Your task to perform on an android device: Search for logitech g pro on ebay.com, select the first entry, and add it to the cart. Image 0: 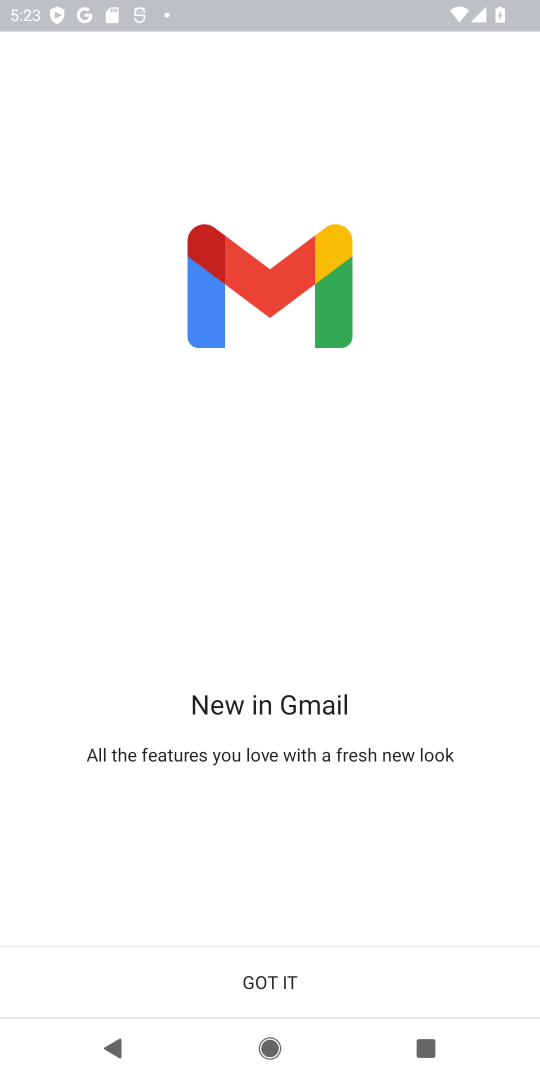
Step 0: press home button
Your task to perform on an android device: Search for logitech g pro on ebay.com, select the first entry, and add it to the cart. Image 1: 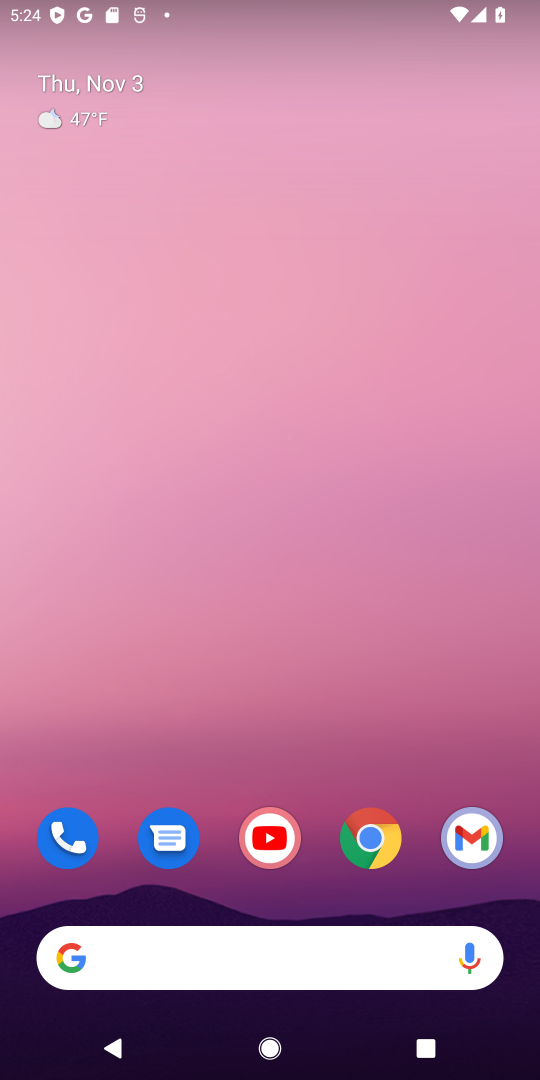
Step 1: click (236, 970)
Your task to perform on an android device: Search for logitech g pro on ebay.com, select the first entry, and add it to the cart. Image 2: 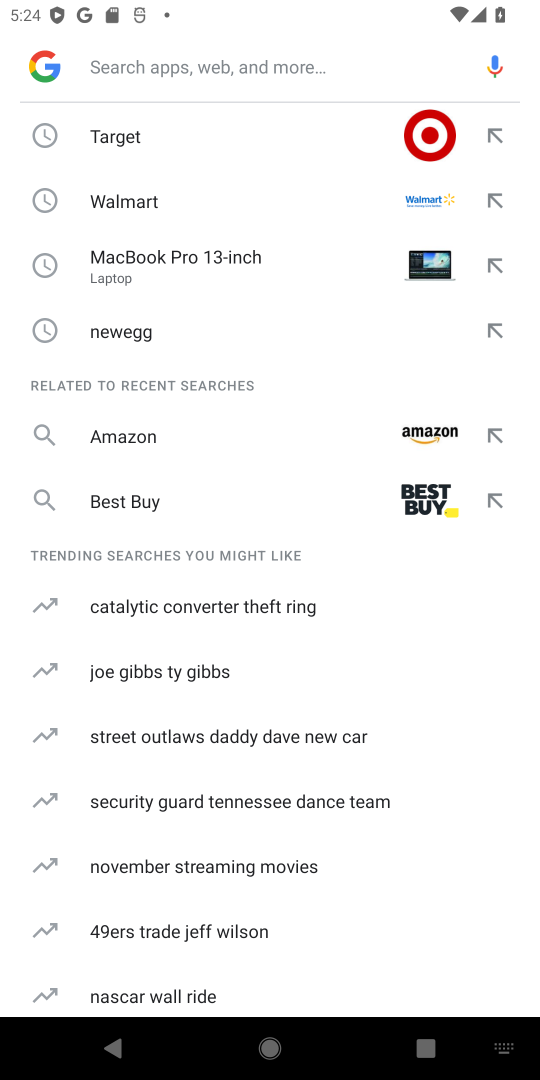
Step 2: type "ebay.com"
Your task to perform on an android device: Search for logitech g pro on ebay.com, select the first entry, and add it to the cart. Image 3: 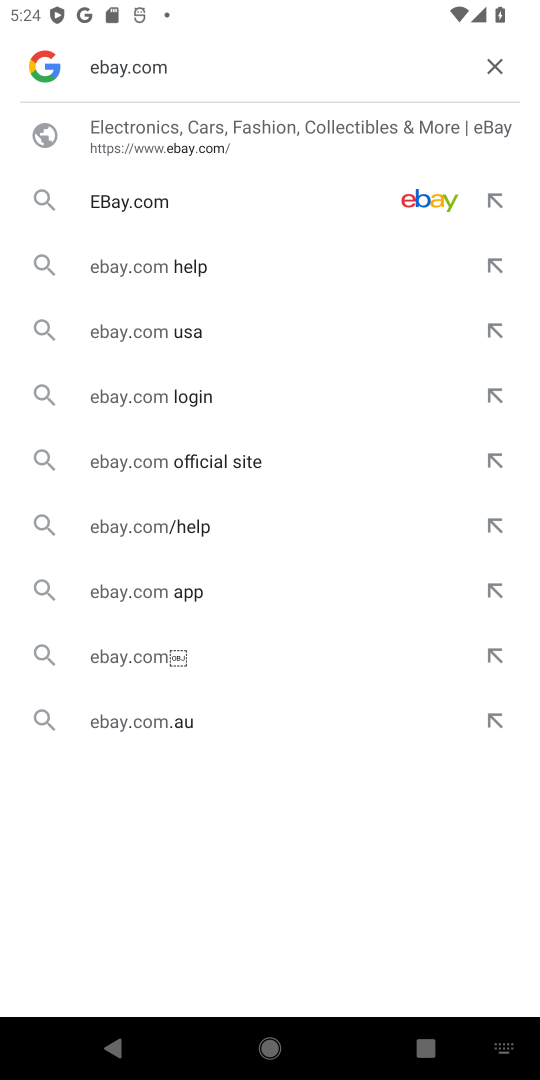
Step 3: click (169, 145)
Your task to perform on an android device: Search for logitech g pro on ebay.com, select the first entry, and add it to the cart. Image 4: 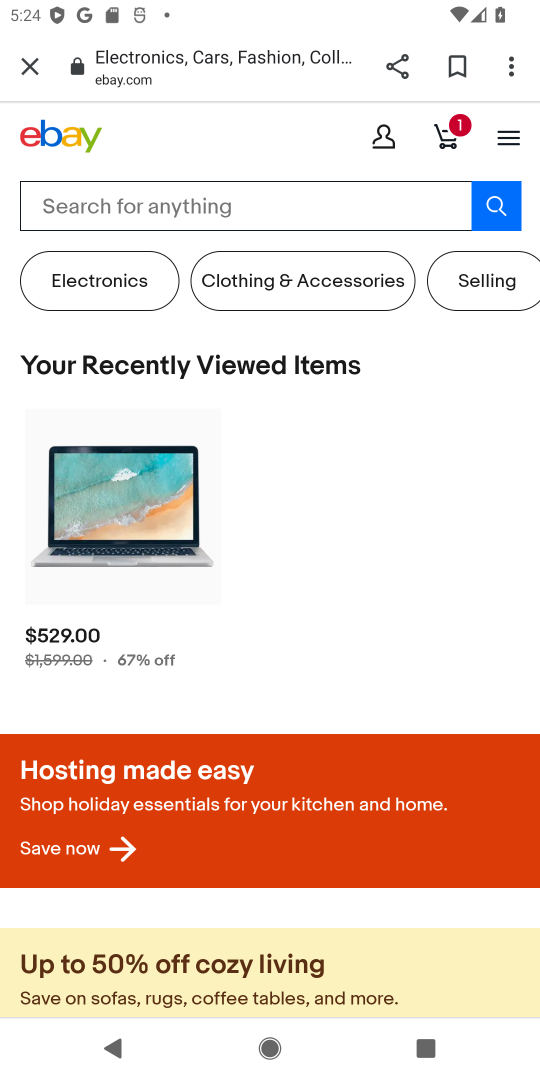
Step 4: click (155, 213)
Your task to perform on an android device: Search for logitech g pro on ebay.com, select the first entry, and add it to the cart. Image 5: 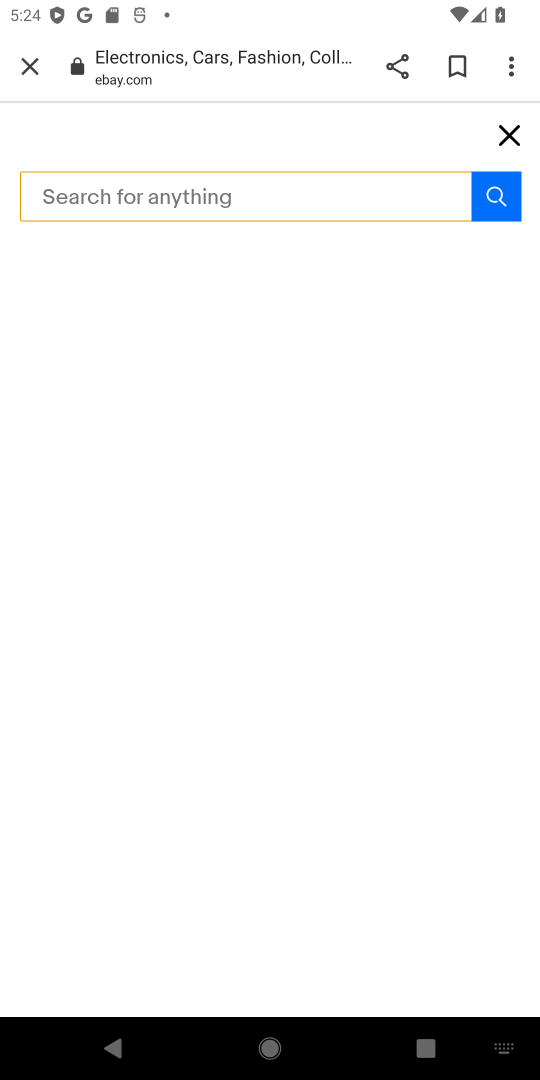
Step 5: type "logitech g pro "
Your task to perform on an android device: Search for logitech g pro on ebay.com, select the first entry, and add it to the cart. Image 6: 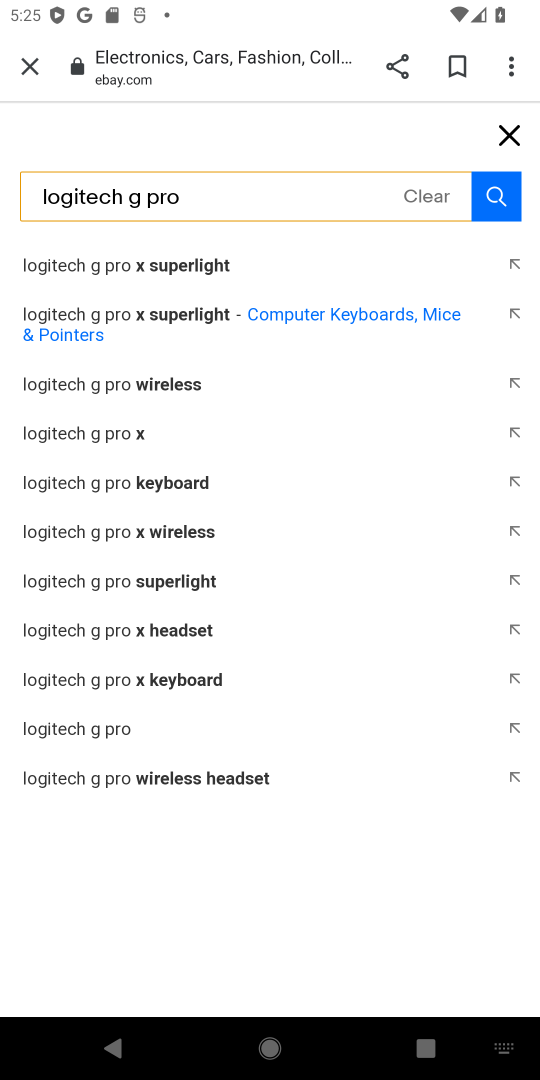
Step 6: click (140, 722)
Your task to perform on an android device: Search for logitech g pro on ebay.com, select the first entry, and add it to the cart. Image 7: 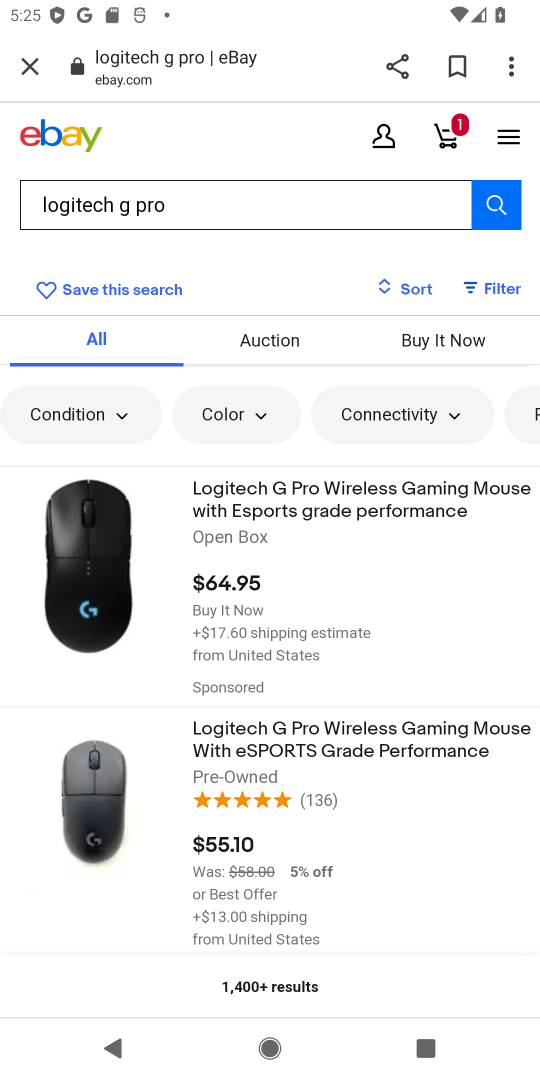
Step 7: click (315, 498)
Your task to perform on an android device: Search for logitech g pro on ebay.com, select the first entry, and add it to the cart. Image 8: 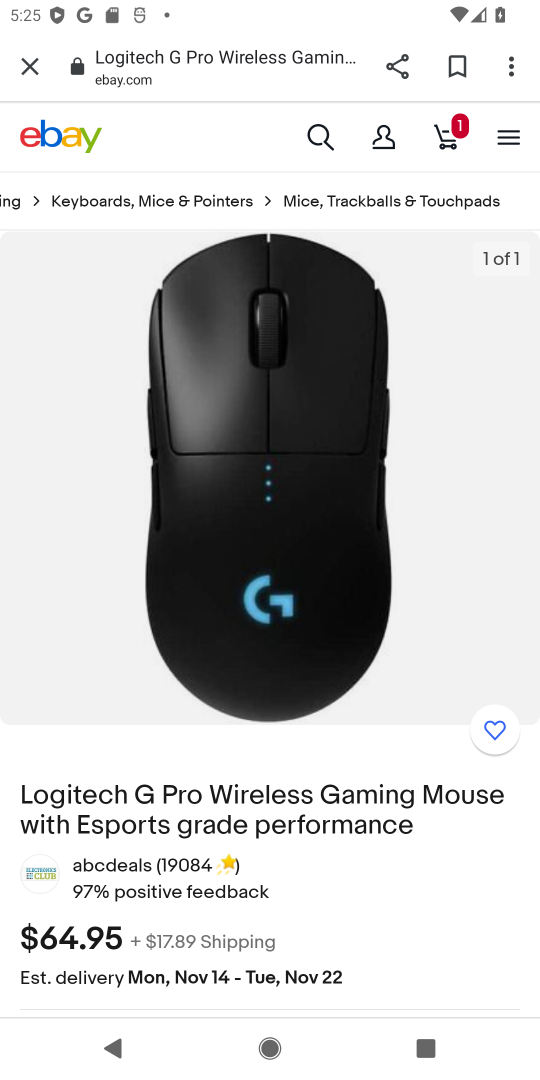
Step 8: drag from (451, 795) to (451, 591)
Your task to perform on an android device: Search for logitech g pro on ebay.com, select the first entry, and add it to the cart. Image 9: 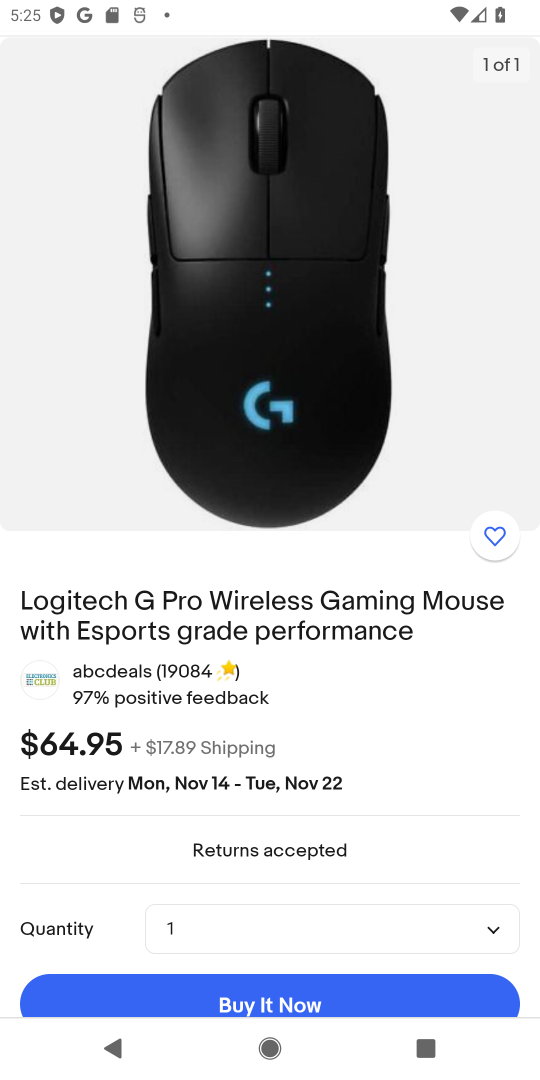
Step 9: drag from (401, 836) to (401, 743)
Your task to perform on an android device: Search for logitech g pro on ebay.com, select the first entry, and add it to the cart. Image 10: 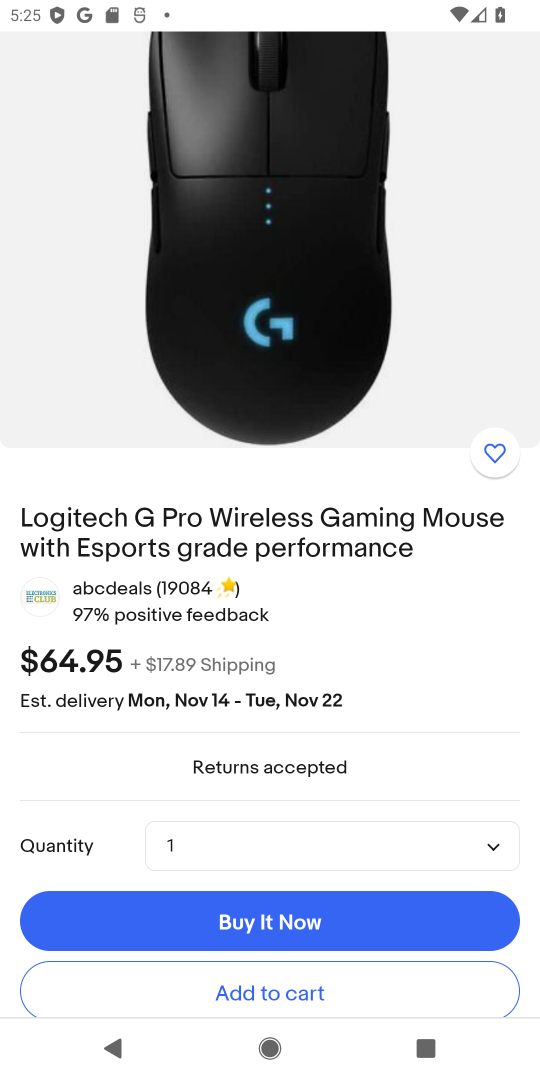
Step 10: click (261, 991)
Your task to perform on an android device: Search for logitech g pro on ebay.com, select the first entry, and add it to the cart. Image 11: 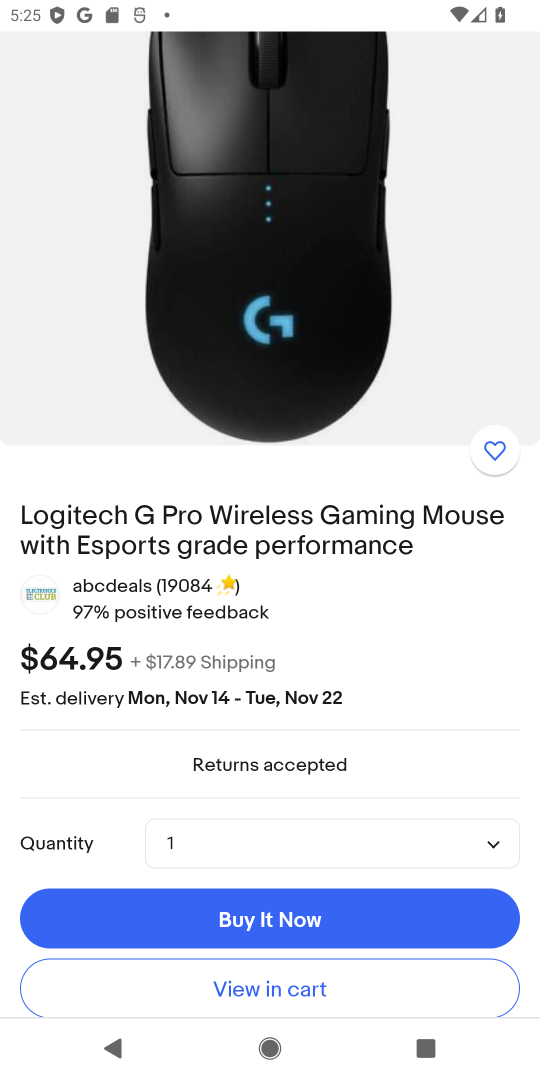
Step 11: task complete